Your task to perform on an android device: Search for lg ultragear on newegg, select the first entry, add it to the cart, then select checkout. Image 0: 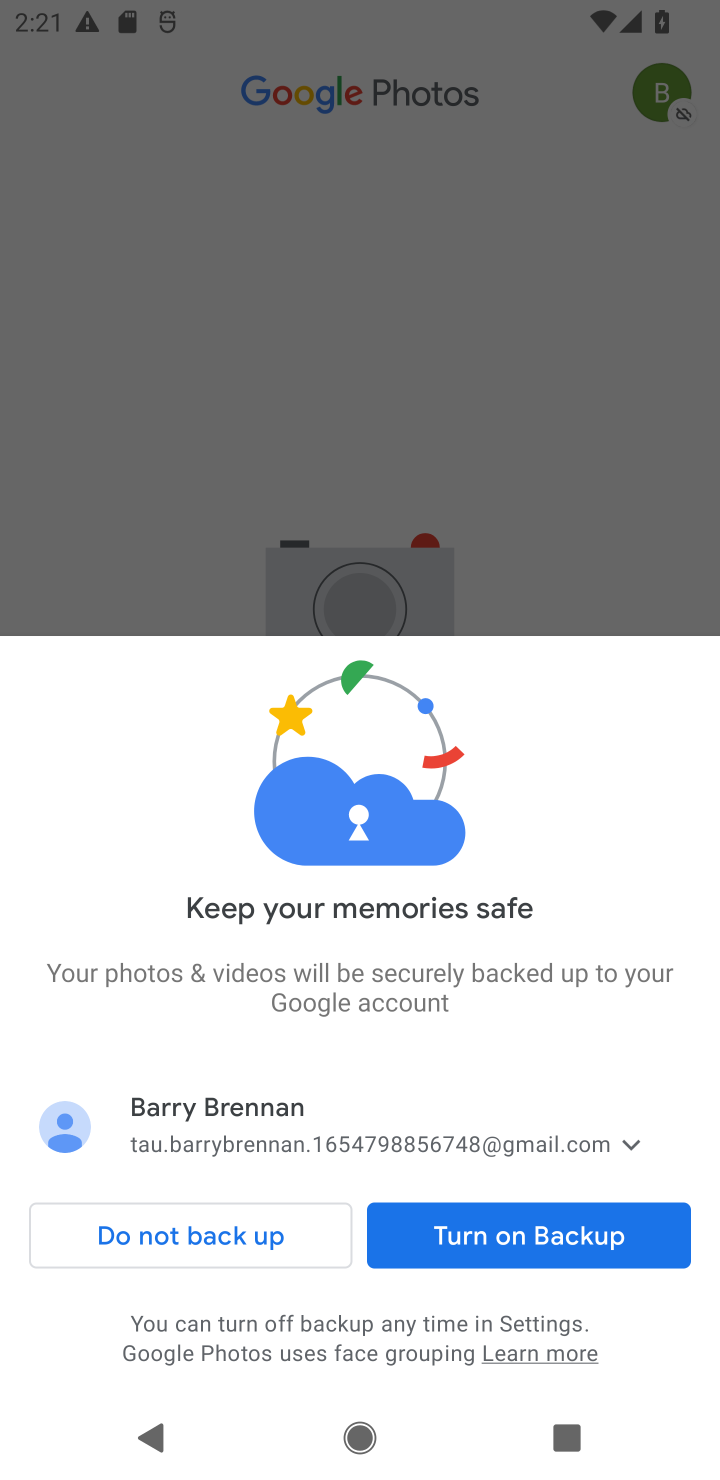
Step 0: press home button
Your task to perform on an android device: Search for lg ultragear on newegg, select the first entry, add it to the cart, then select checkout. Image 1: 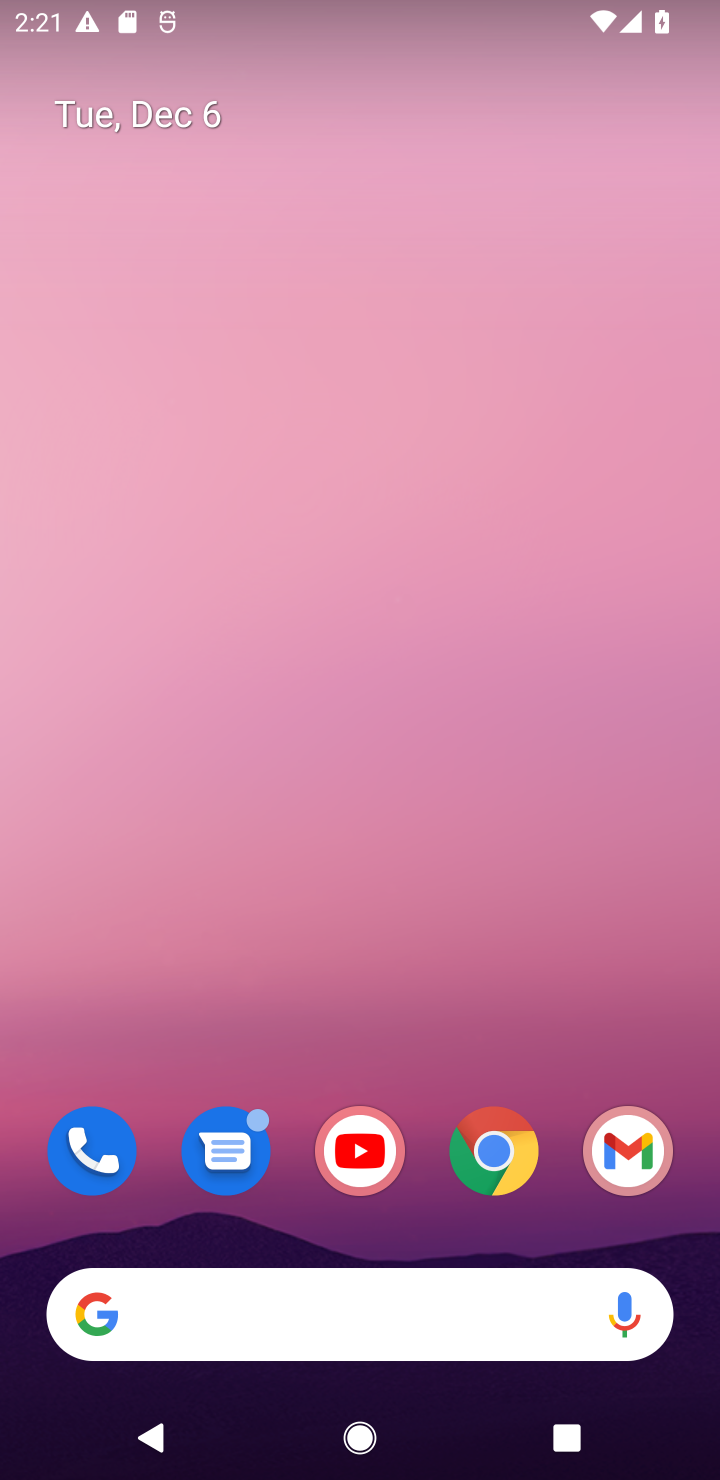
Step 1: click (528, 1152)
Your task to perform on an android device: Search for lg ultragear on newegg, select the first entry, add it to the cart, then select checkout. Image 2: 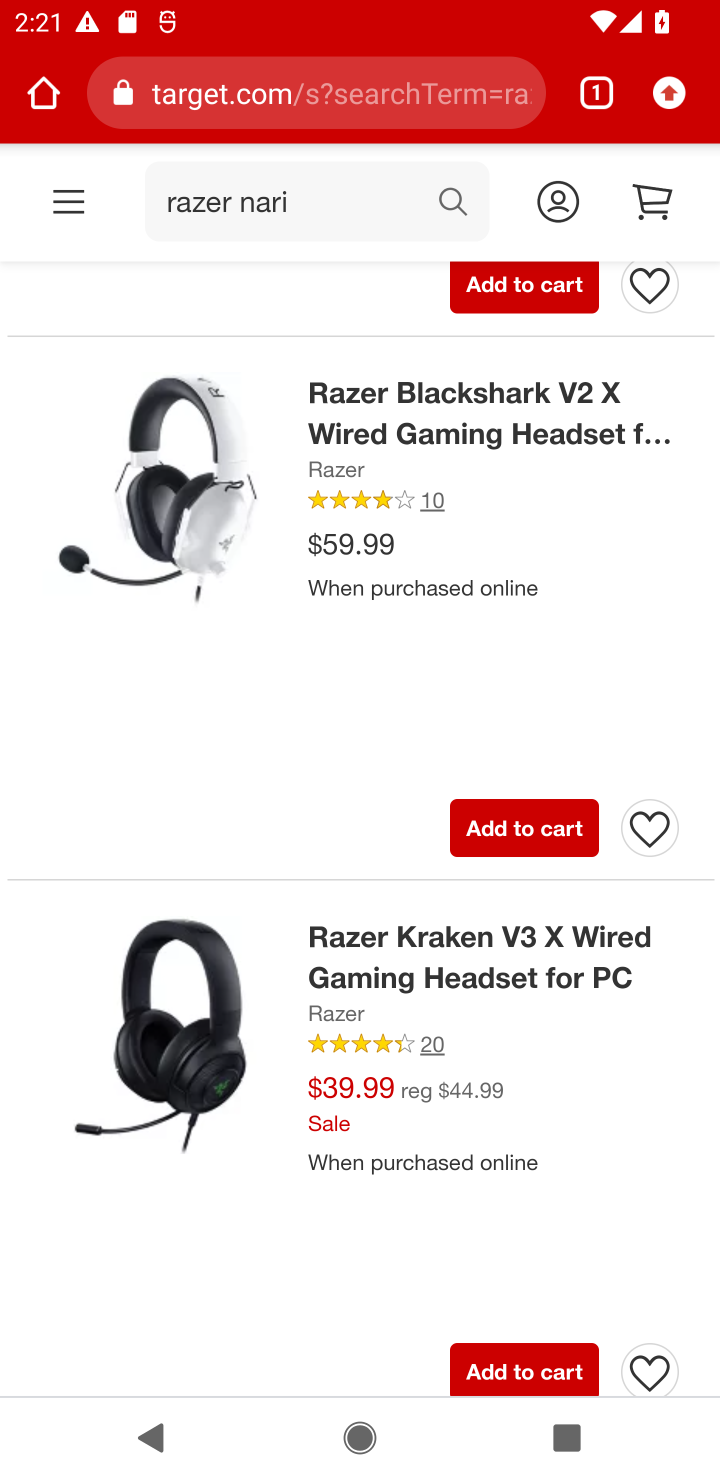
Step 2: click (259, 98)
Your task to perform on an android device: Search for lg ultragear on newegg, select the first entry, add it to the cart, then select checkout. Image 3: 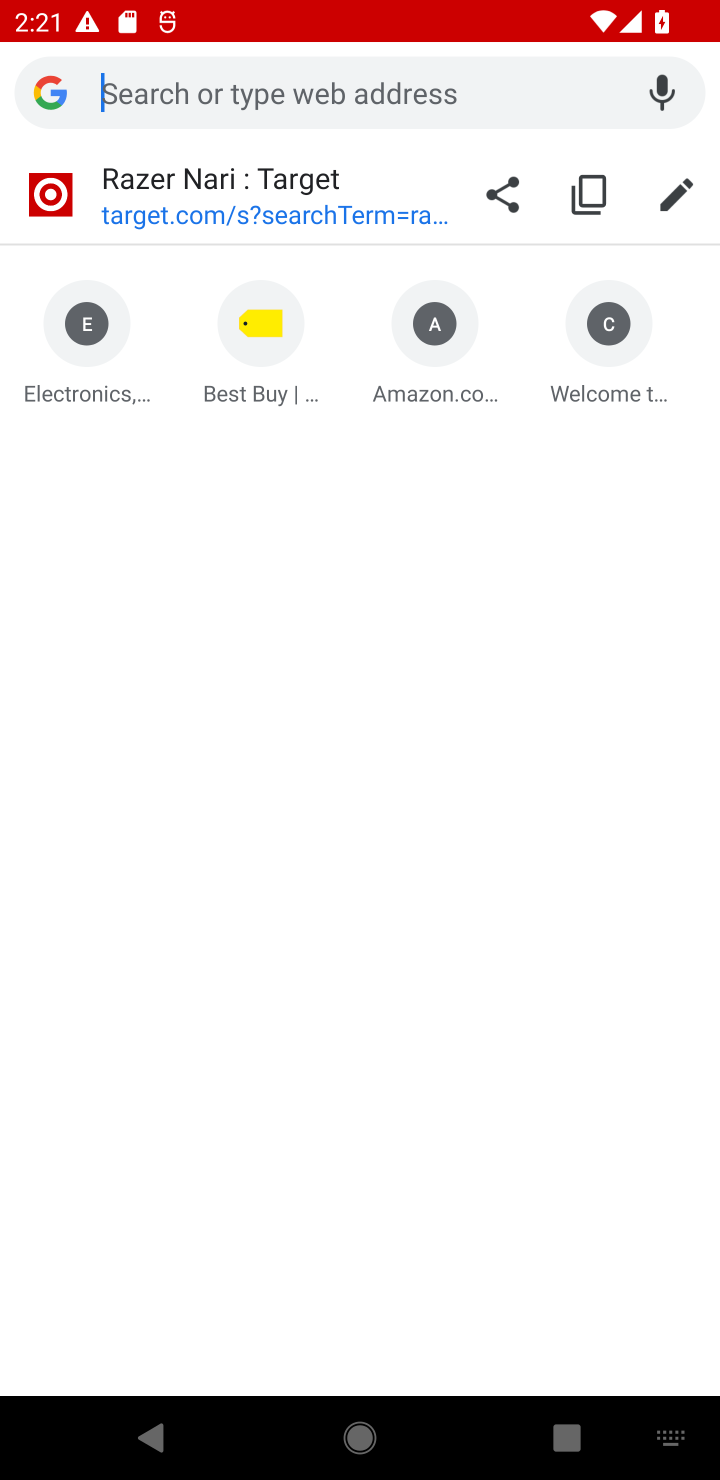
Step 3: type "newegg.com"
Your task to perform on an android device: Search for lg ultragear on newegg, select the first entry, add it to the cart, then select checkout. Image 4: 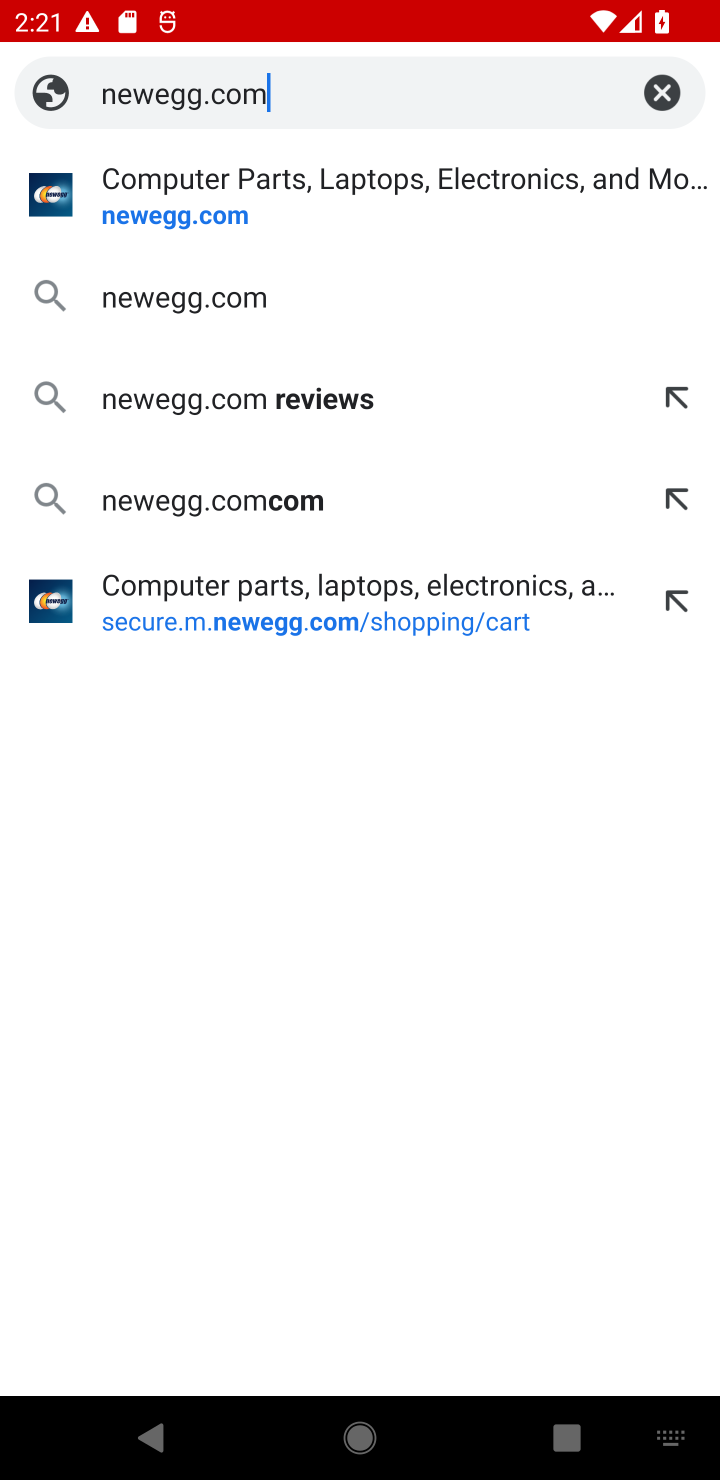
Step 4: click (97, 221)
Your task to perform on an android device: Search for lg ultragear on newegg, select the first entry, add it to the cart, then select checkout. Image 5: 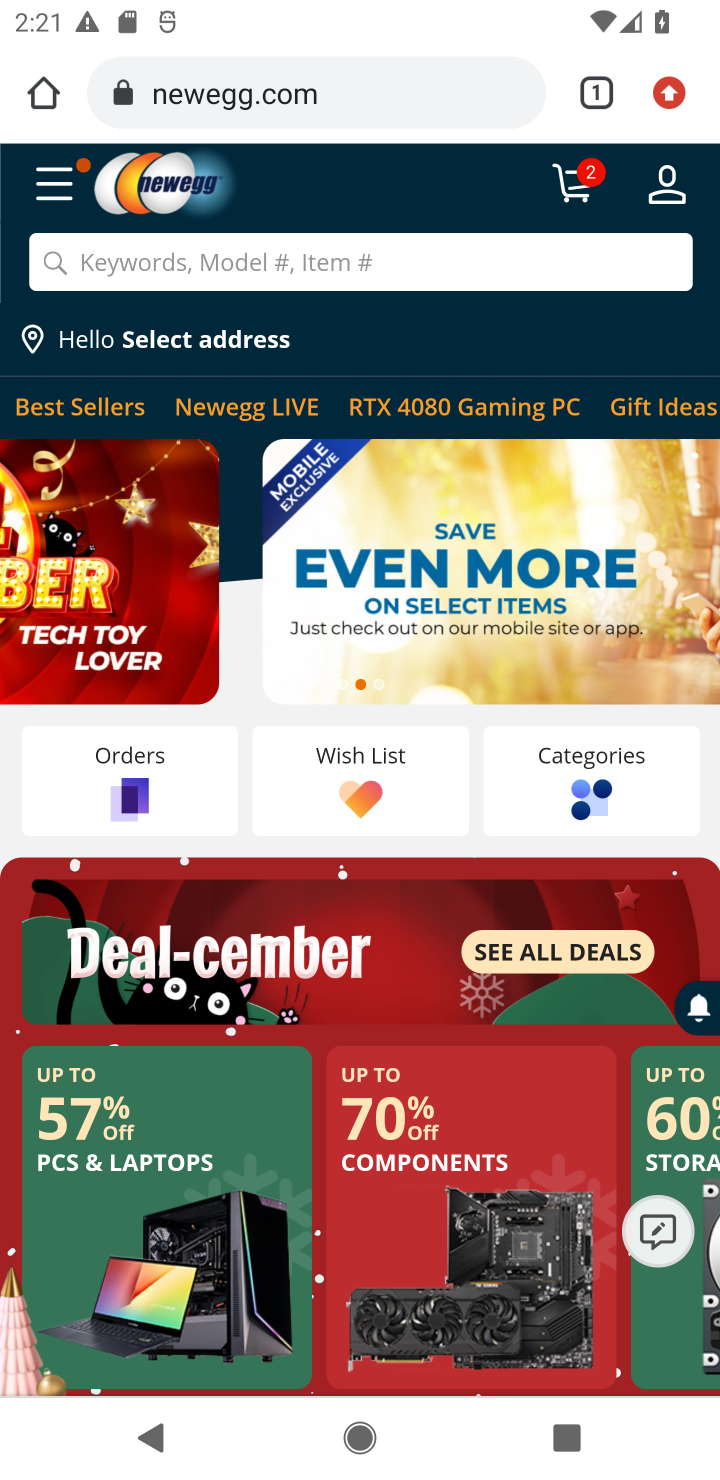
Step 5: click (121, 258)
Your task to perform on an android device: Search for lg ultragear on newegg, select the first entry, add it to the cart, then select checkout. Image 6: 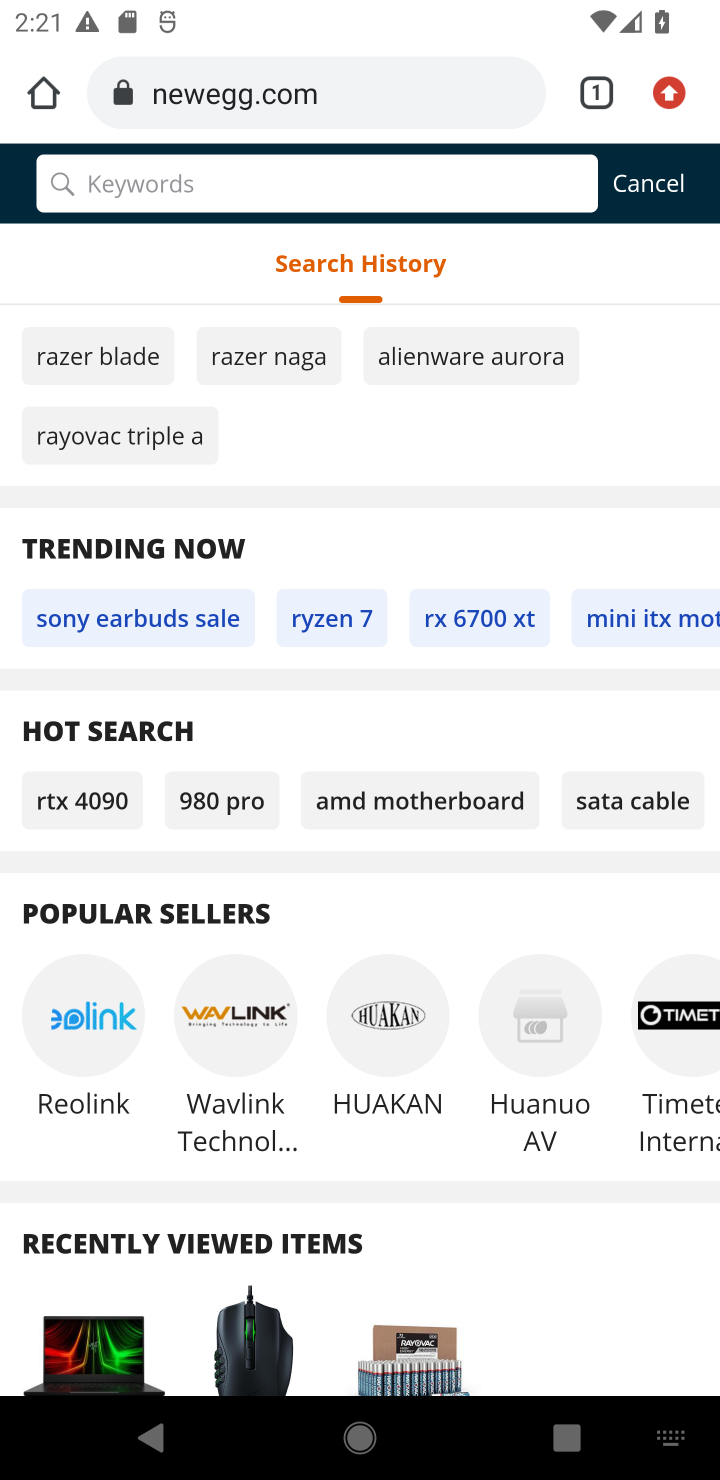
Step 6: type " lg ultragear "
Your task to perform on an android device: Search for lg ultragear on newegg, select the first entry, add it to the cart, then select checkout. Image 7: 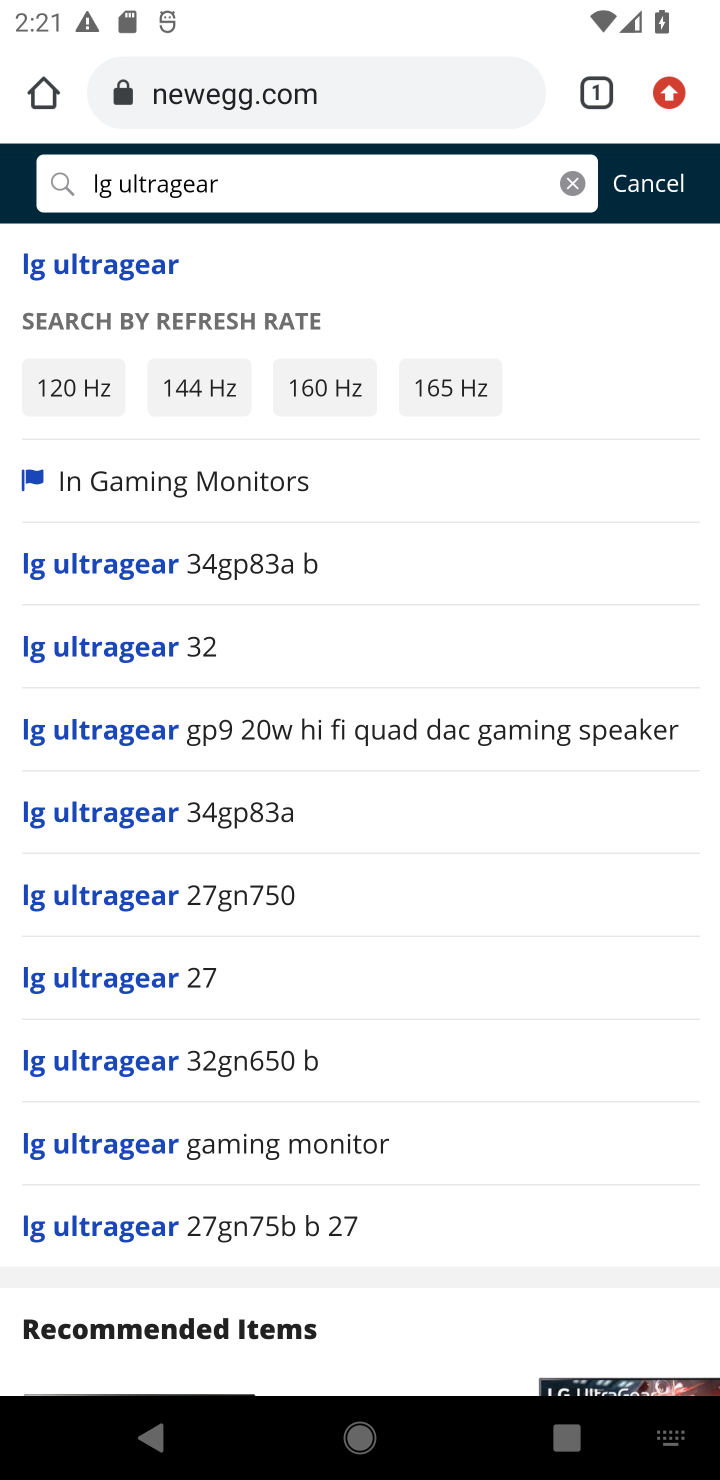
Step 7: click (106, 279)
Your task to perform on an android device: Search for lg ultragear on newegg, select the first entry, add it to the cart, then select checkout. Image 8: 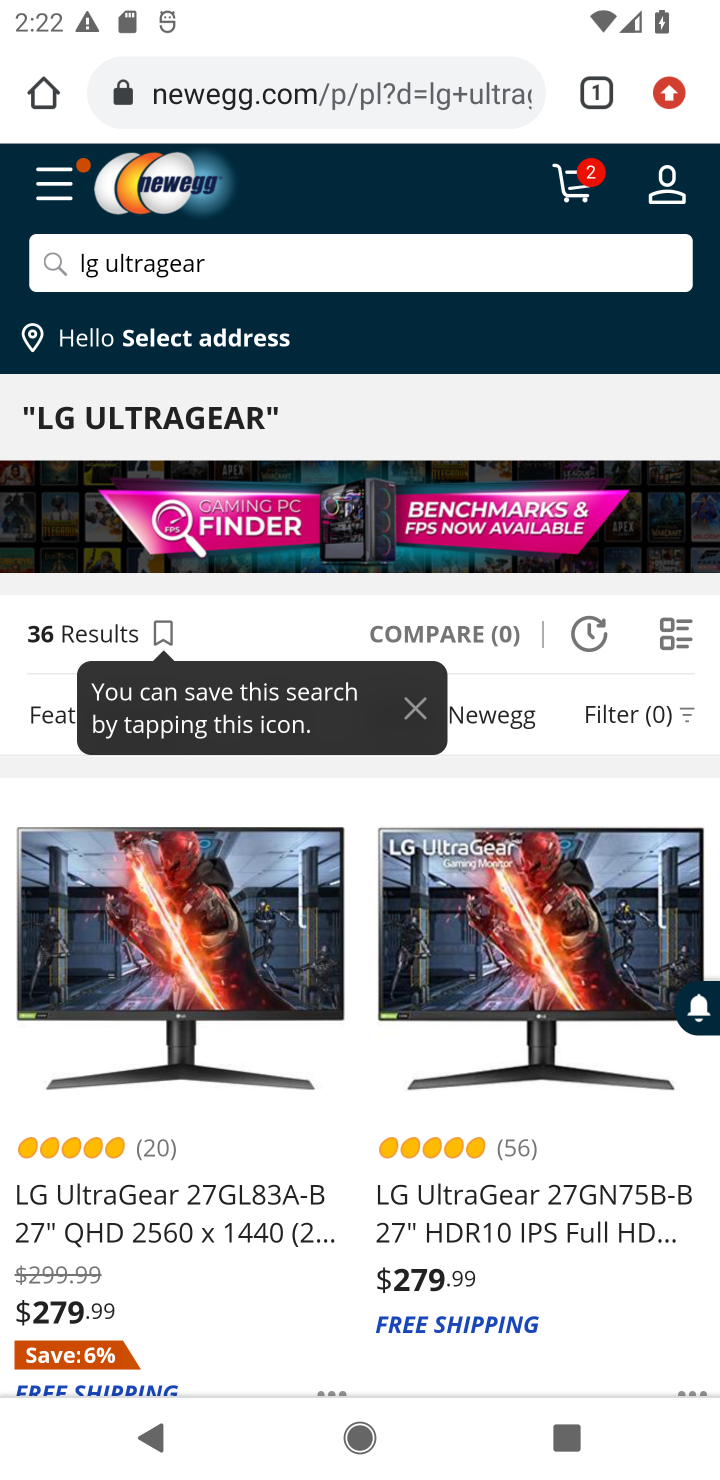
Step 8: click (159, 1215)
Your task to perform on an android device: Search for lg ultragear on newegg, select the first entry, add it to the cart, then select checkout. Image 9: 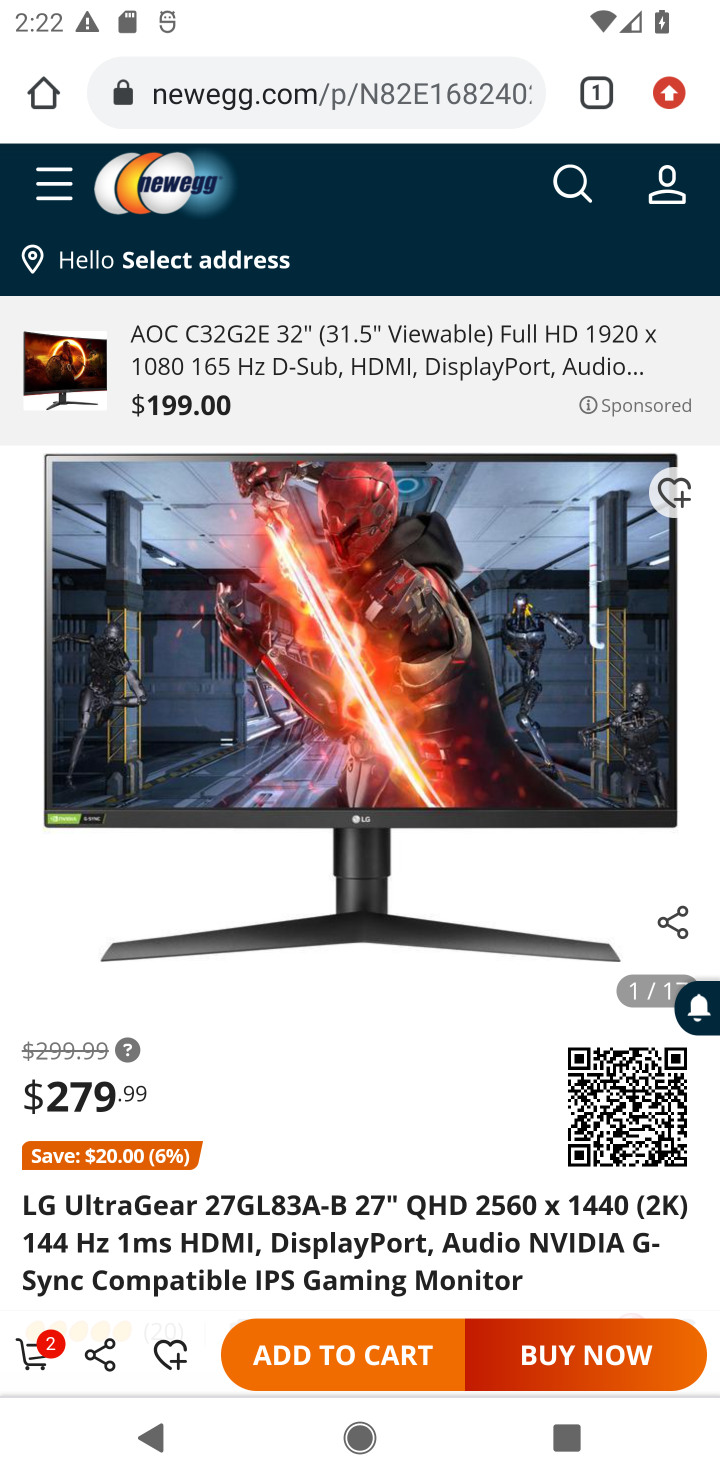
Step 9: click (368, 1365)
Your task to perform on an android device: Search for lg ultragear on newegg, select the first entry, add it to the cart, then select checkout. Image 10: 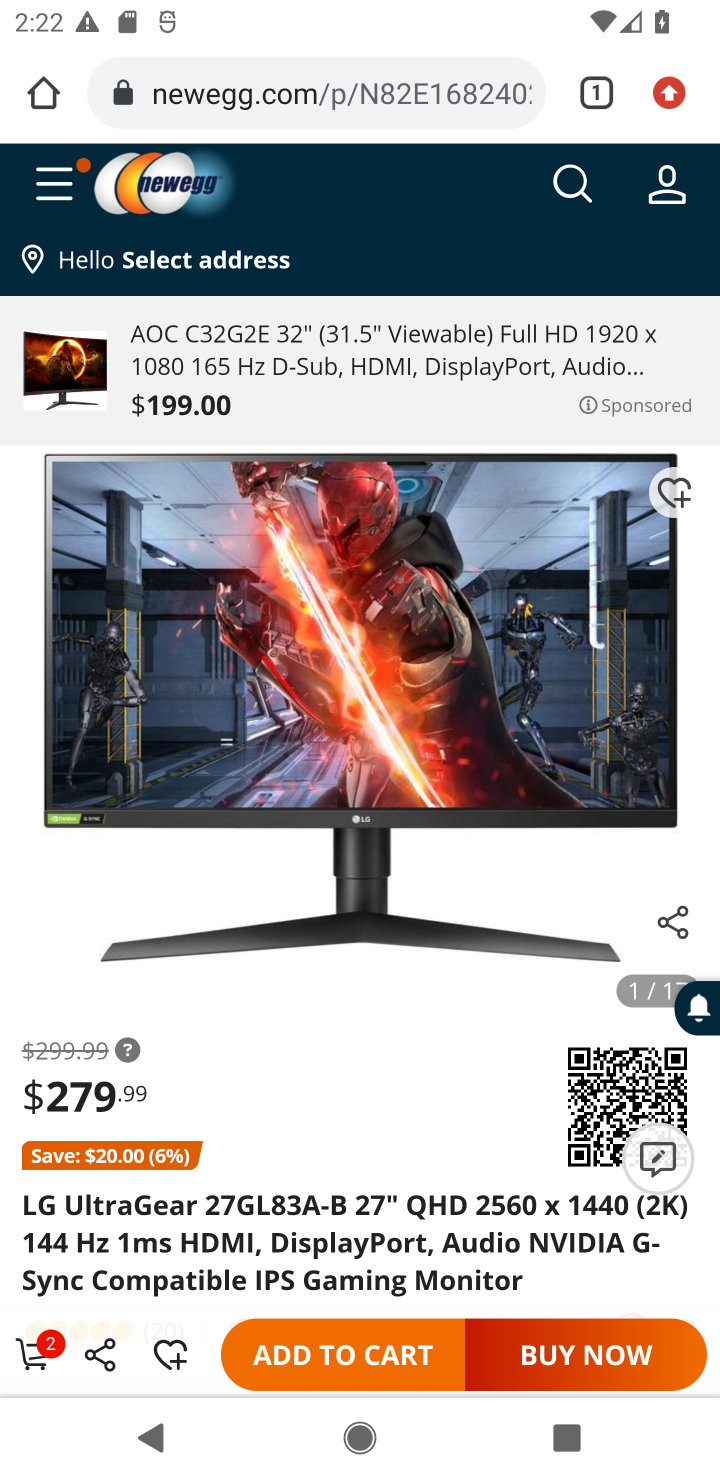
Step 10: click (307, 1366)
Your task to perform on an android device: Search for lg ultragear on newegg, select the first entry, add it to the cart, then select checkout. Image 11: 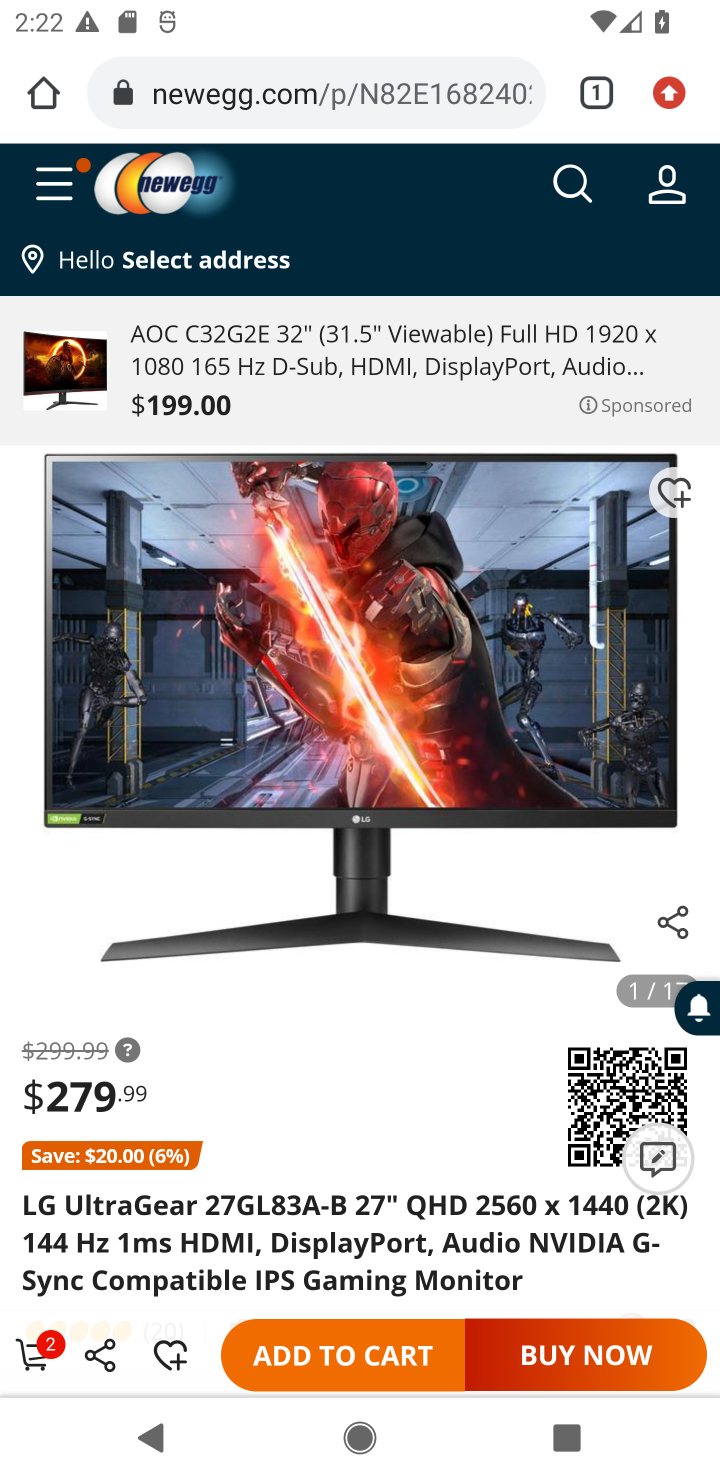
Step 11: click (326, 1367)
Your task to perform on an android device: Search for lg ultragear on newegg, select the first entry, add it to the cart, then select checkout. Image 12: 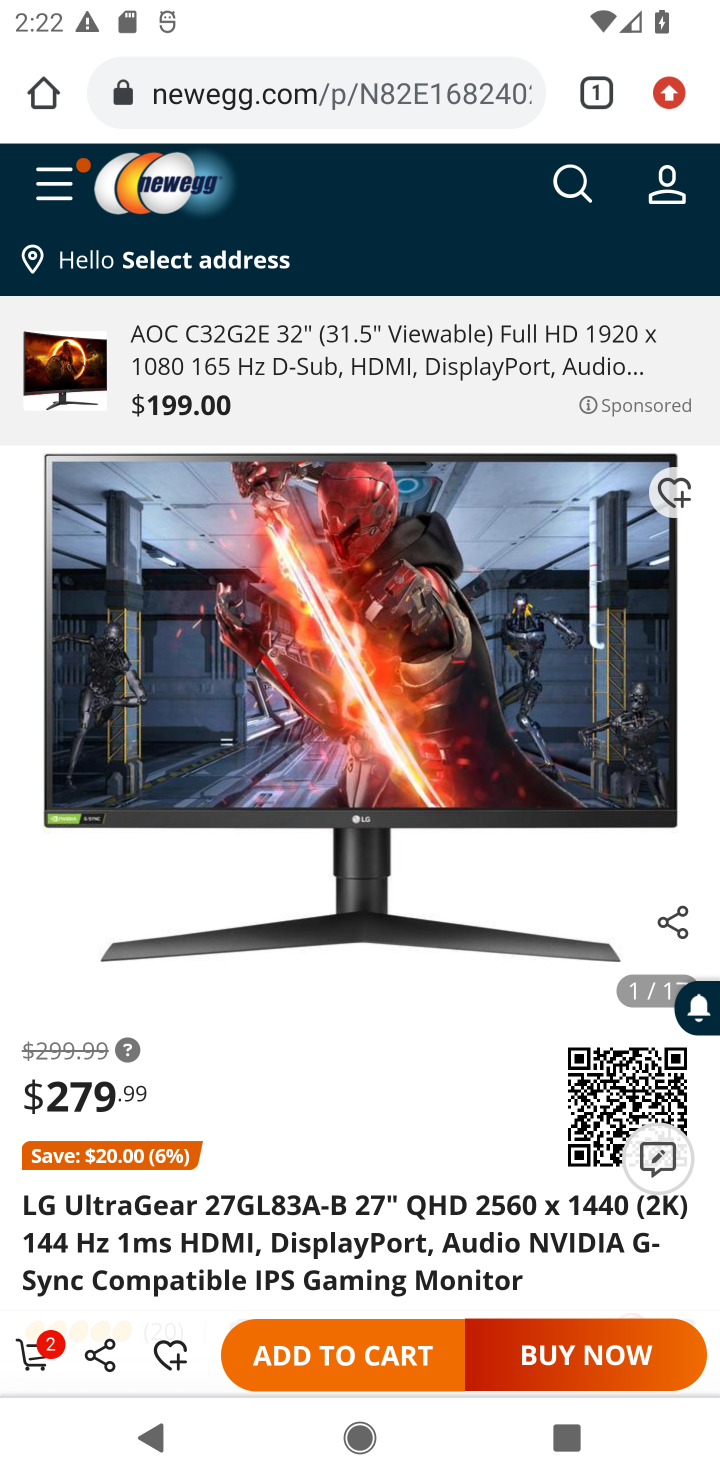
Step 12: click (328, 1355)
Your task to perform on an android device: Search for lg ultragear on newegg, select the first entry, add it to the cart, then select checkout. Image 13: 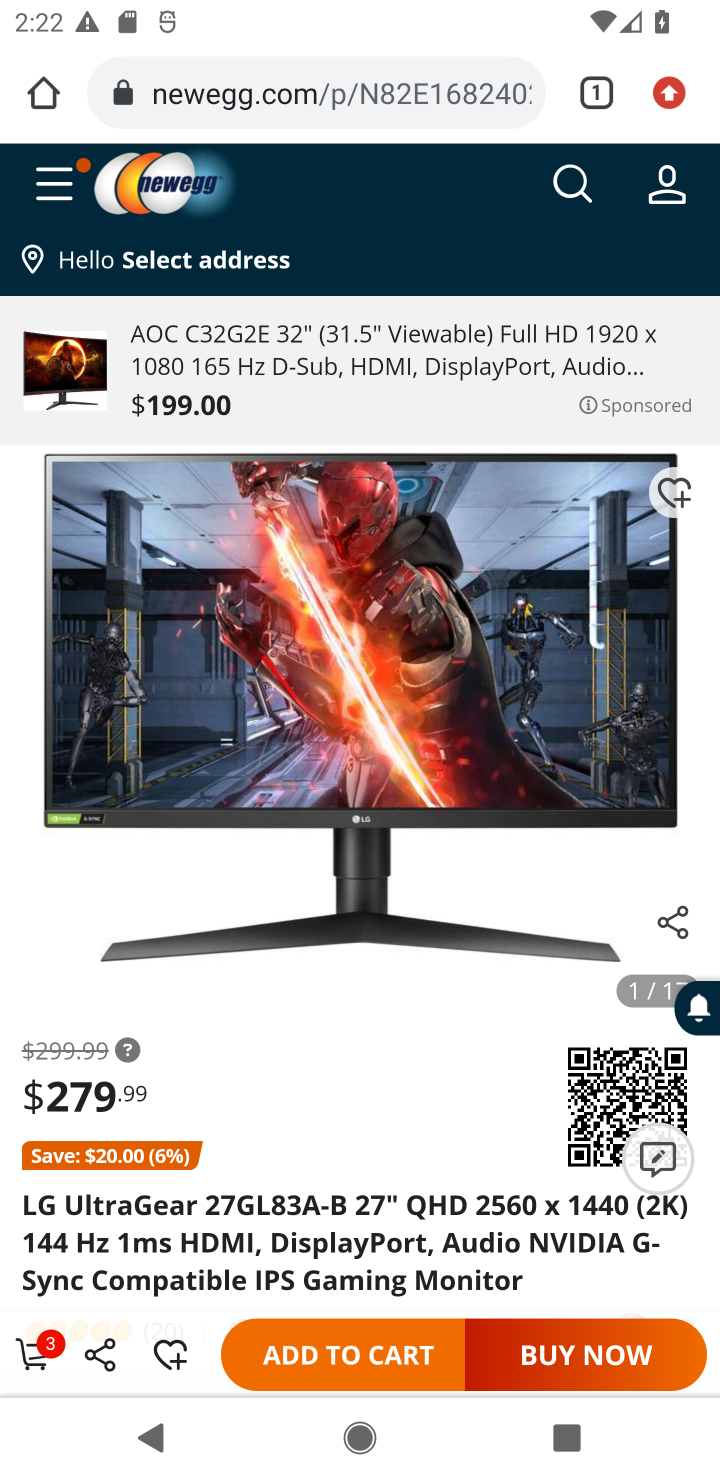
Step 13: click (27, 1352)
Your task to perform on an android device: Search for lg ultragear on newegg, select the first entry, add it to the cart, then select checkout. Image 14: 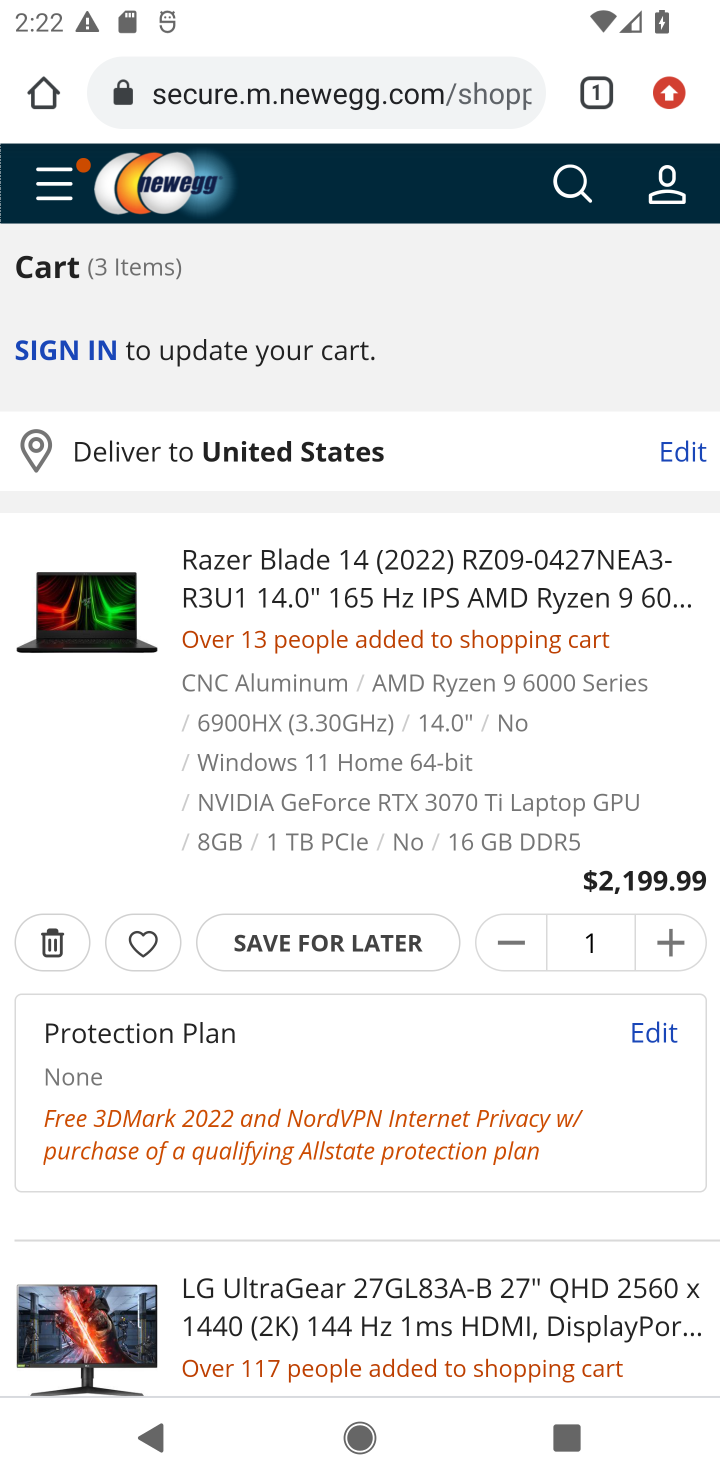
Step 14: click (299, 1277)
Your task to perform on an android device: Search for lg ultragear on newegg, select the first entry, add it to the cart, then select checkout. Image 15: 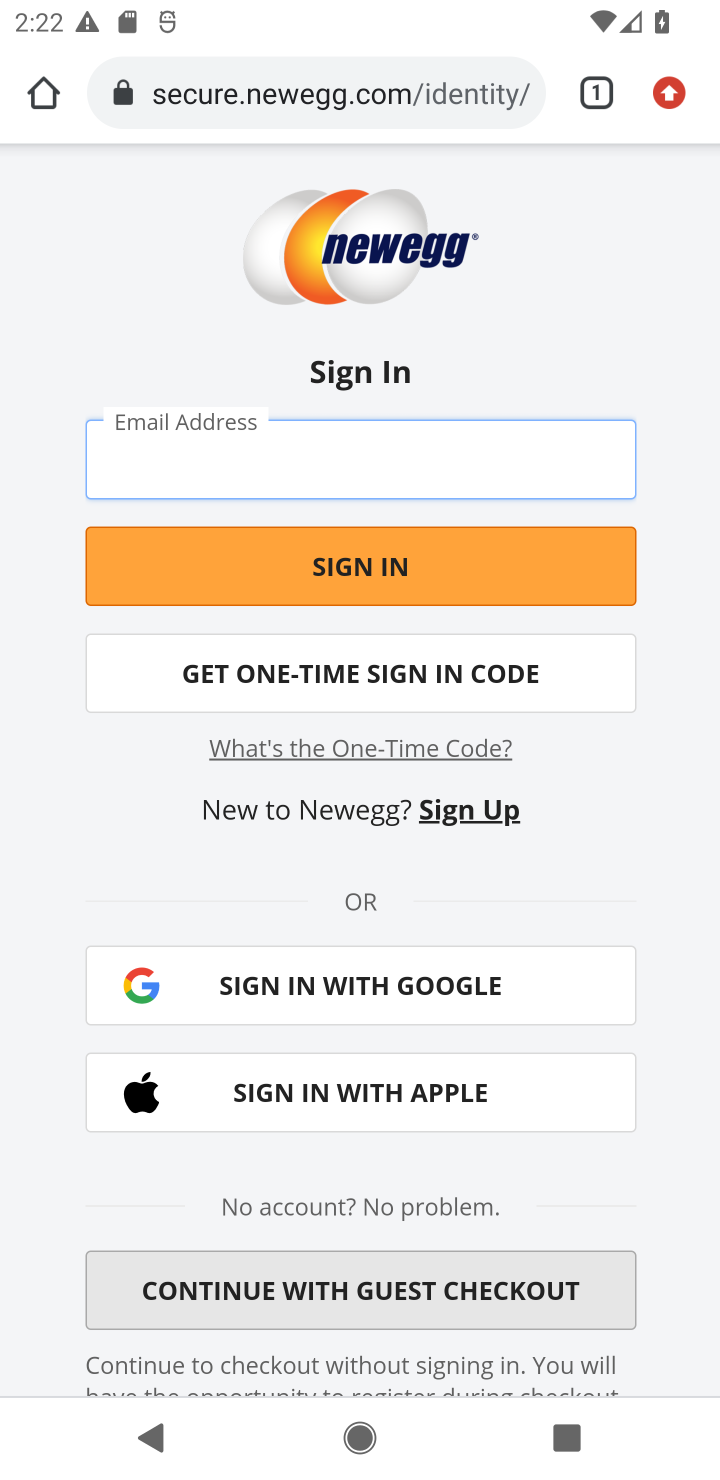
Step 15: task complete